Your task to perform on an android device: find photos in the google photos app Image 0: 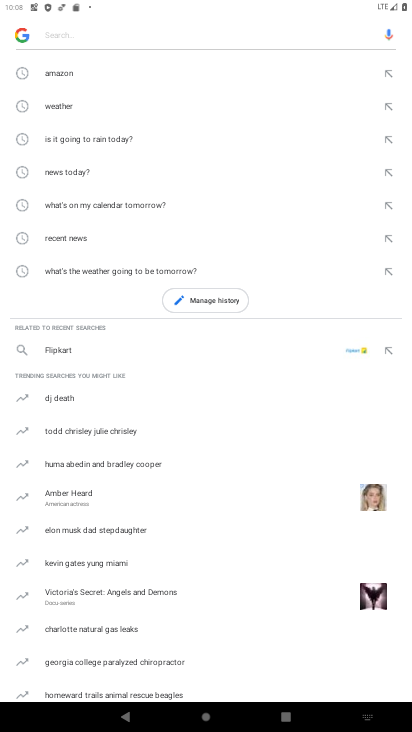
Step 0: press home button
Your task to perform on an android device: find photos in the google photos app Image 1: 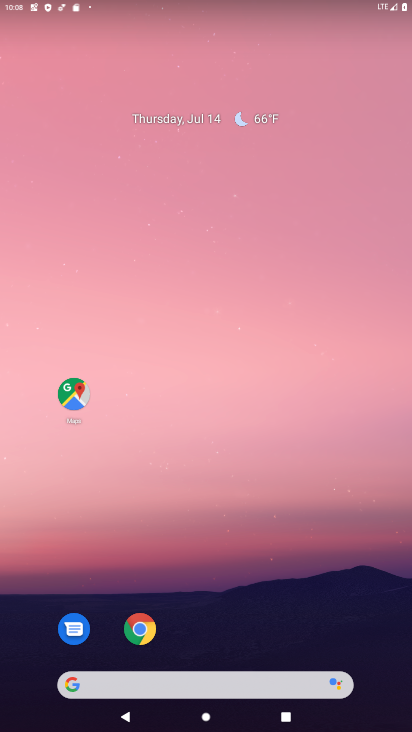
Step 1: drag from (275, 633) to (245, 23)
Your task to perform on an android device: find photos in the google photos app Image 2: 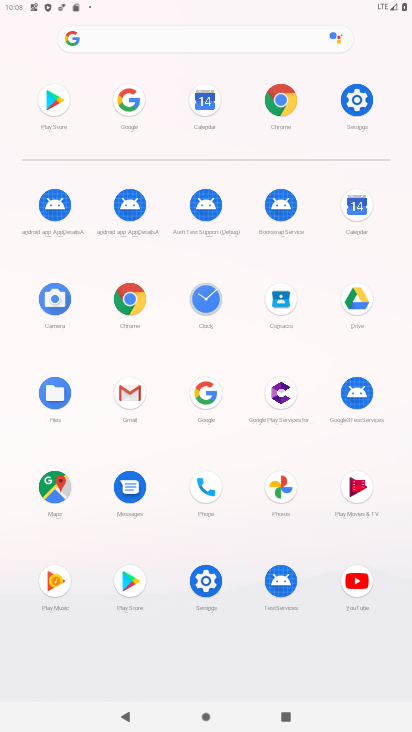
Step 2: click (268, 492)
Your task to perform on an android device: find photos in the google photos app Image 3: 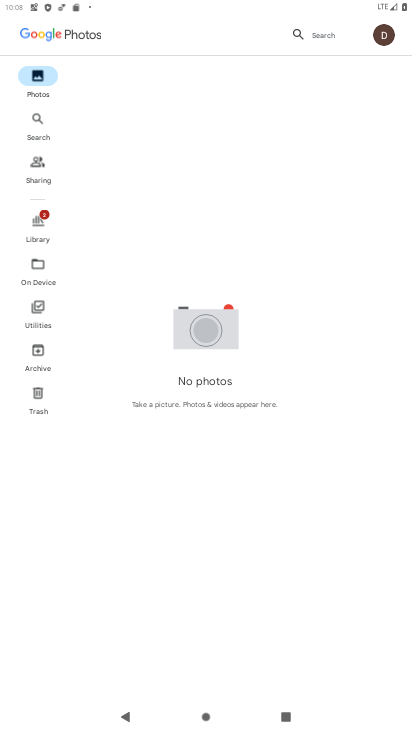
Step 3: task complete